Your task to perform on an android device: search for starred emails in the gmail app Image 0: 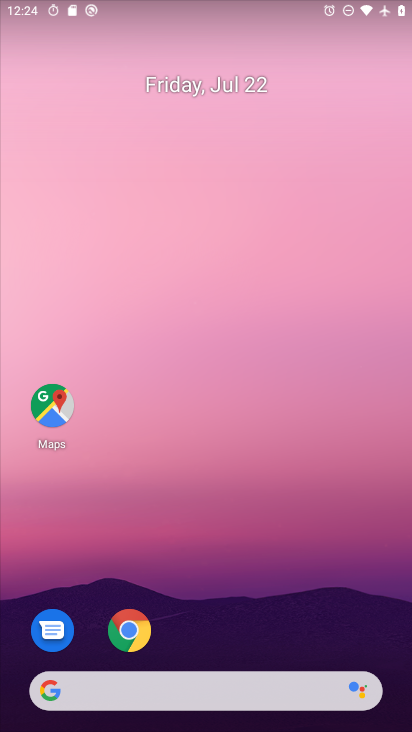
Step 0: press home button
Your task to perform on an android device: search for starred emails in the gmail app Image 1: 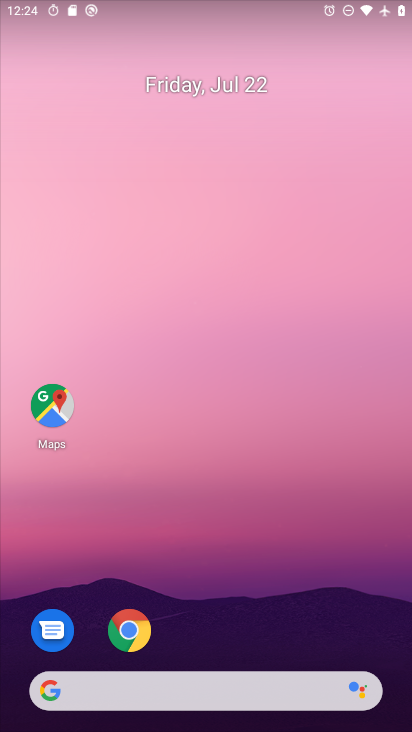
Step 1: drag from (235, 637) to (220, 231)
Your task to perform on an android device: search for starred emails in the gmail app Image 2: 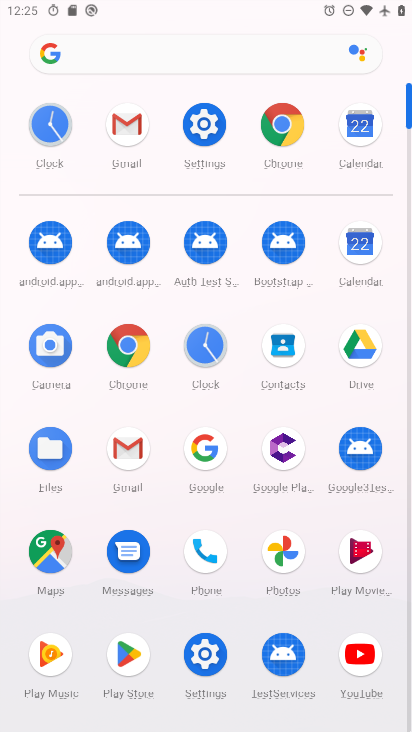
Step 2: click (125, 126)
Your task to perform on an android device: search for starred emails in the gmail app Image 3: 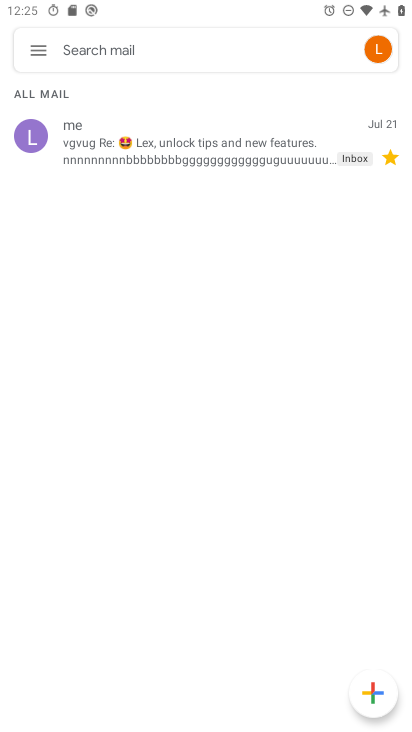
Step 3: click (38, 53)
Your task to perform on an android device: search for starred emails in the gmail app Image 4: 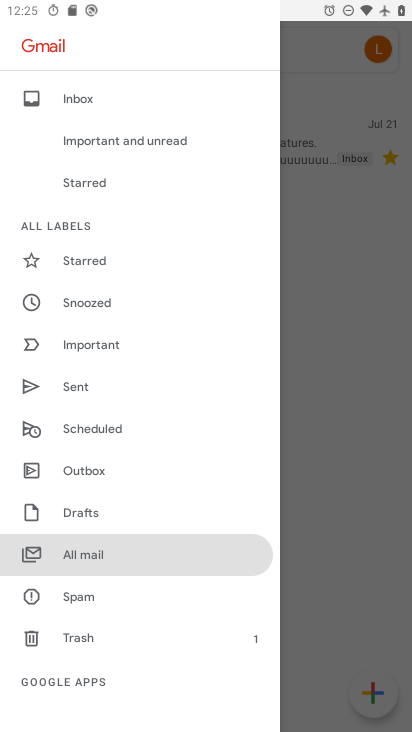
Step 4: click (78, 258)
Your task to perform on an android device: search for starred emails in the gmail app Image 5: 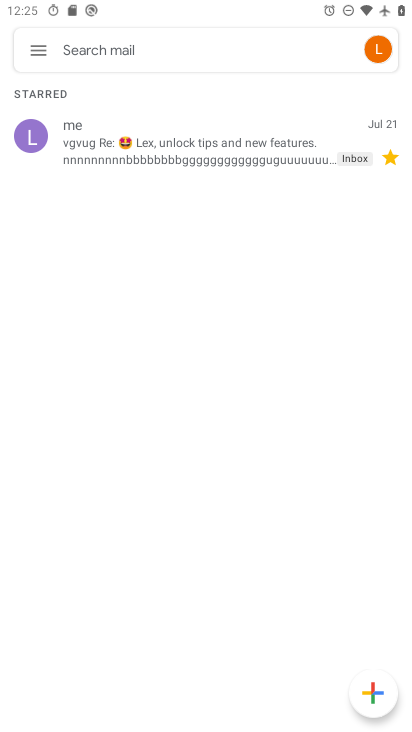
Step 5: task complete